Your task to perform on an android device: check android version Image 0: 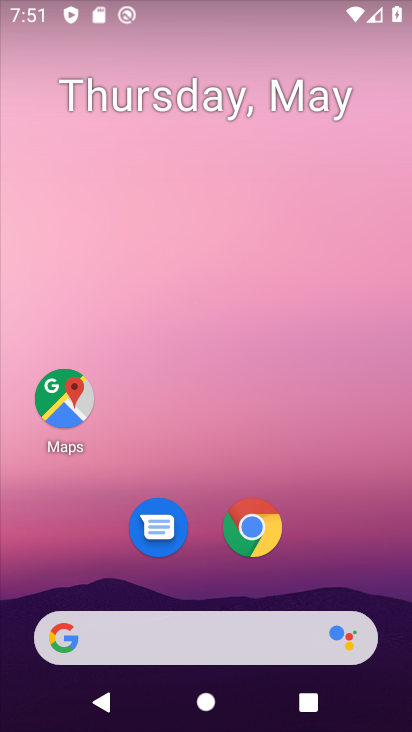
Step 0: drag from (201, 619) to (216, 261)
Your task to perform on an android device: check android version Image 1: 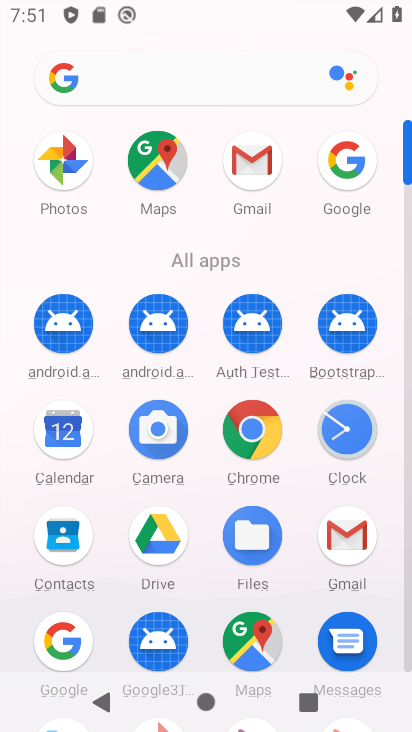
Step 1: drag from (117, 601) to (161, 194)
Your task to perform on an android device: check android version Image 2: 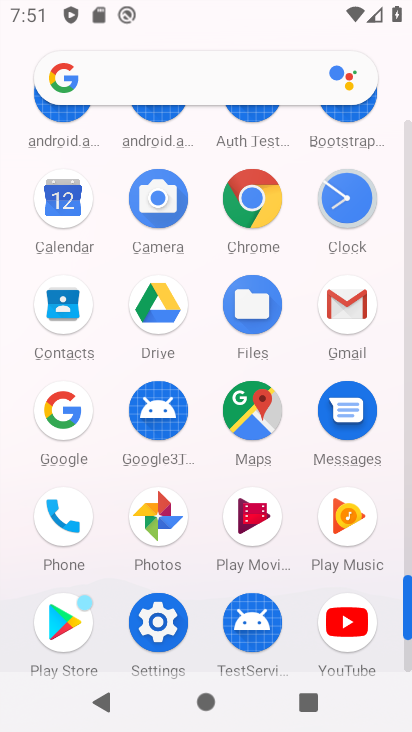
Step 2: click (157, 632)
Your task to perform on an android device: check android version Image 3: 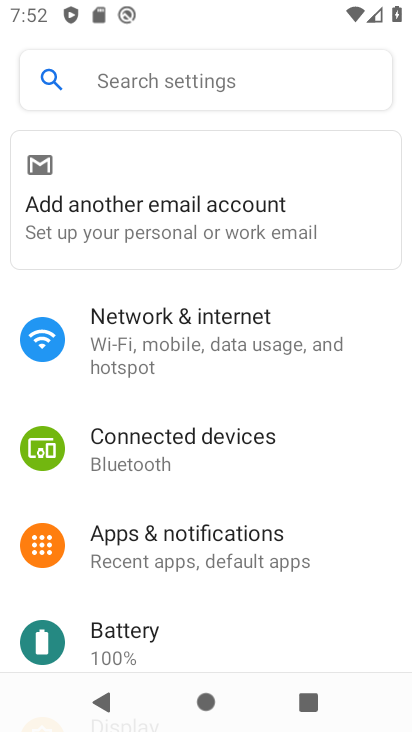
Step 3: drag from (183, 651) to (233, 258)
Your task to perform on an android device: check android version Image 4: 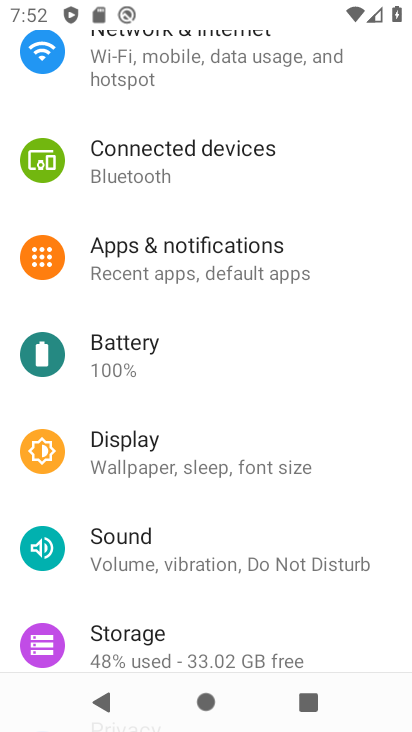
Step 4: drag from (162, 657) to (165, 281)
Your task to perform on an android device: check android version Image 5: 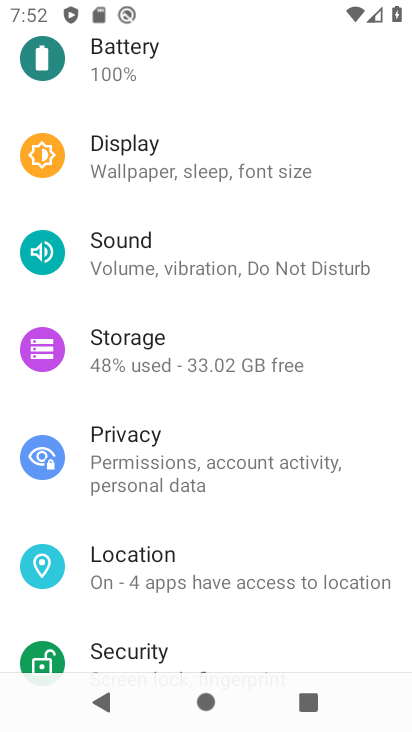
Step 5: drag from (141, 639) to (156, 232)
Your task to perform on an android device: check android version Image 6: 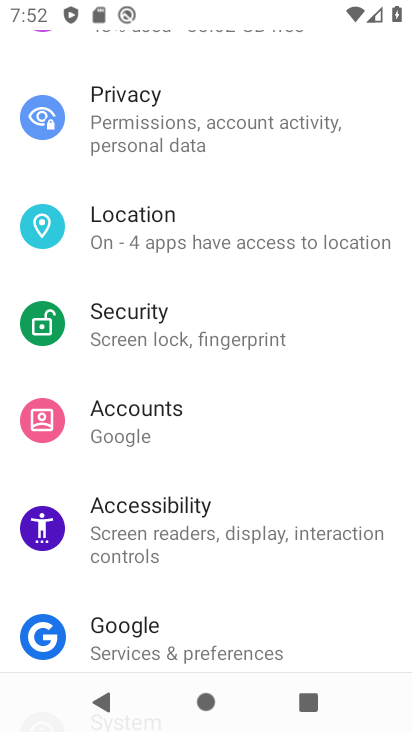
Step 6: drag from (147, 659) to (186, 232)
Your task to perform on an android device: check android version Image 7: 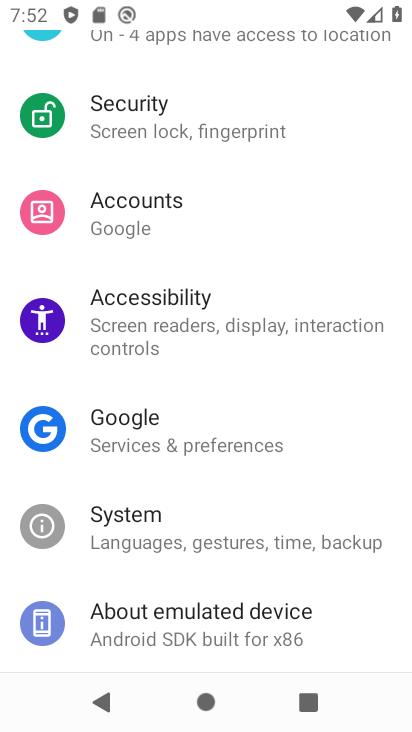
Step 7: click (196, 626)
Your task to perform on an android device: check android version Image 8: 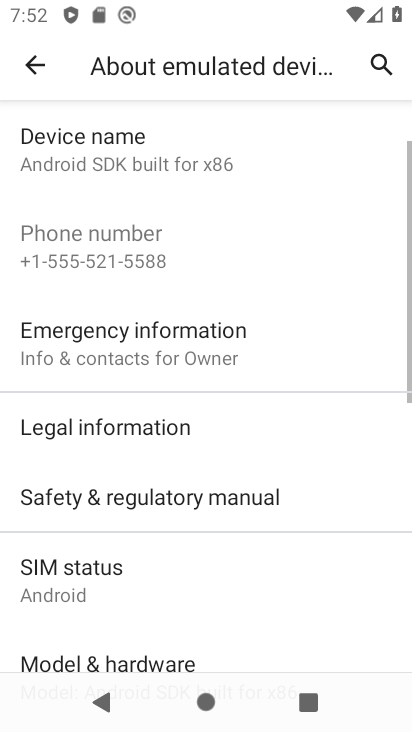
Step 8: drag from (133, 529) to (159, 185)
Your task to perform on an android device: check android version Image 9: 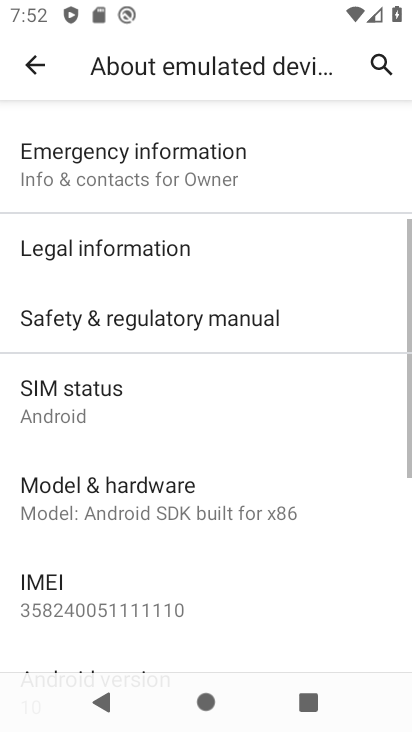
Step 9: drag from (127, 651) to (163, 388)
Your task to perform on an android device: check android version Image 10: 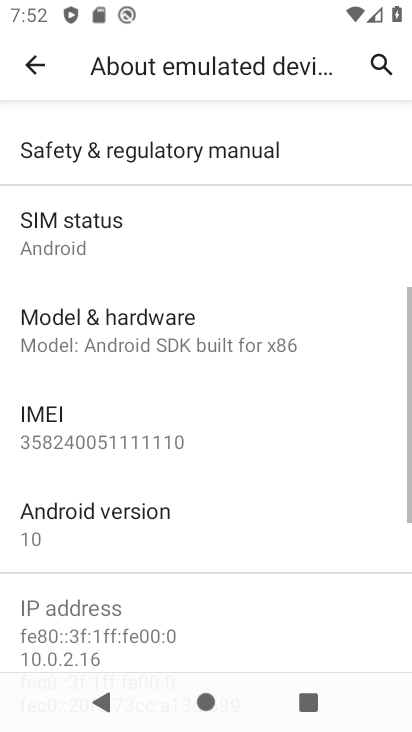
Step 10: click (91, 522)
Your task to perform on an android device: check android version Image 11: 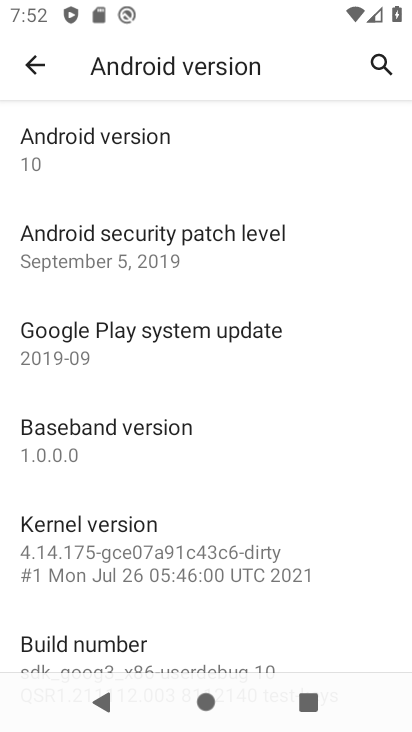
Step 11: drag from (162, 617) to (207, 390)
Your task to perform on an android device: check android version Image 12: 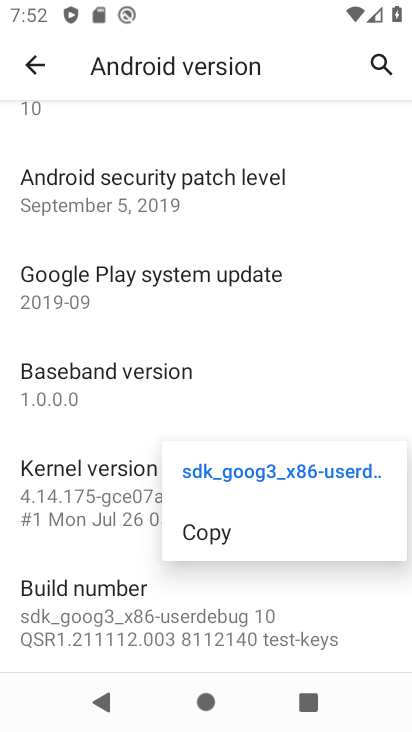
Step 12: click (351, 346)
Your task to perform on an android device: check android version Image 13: 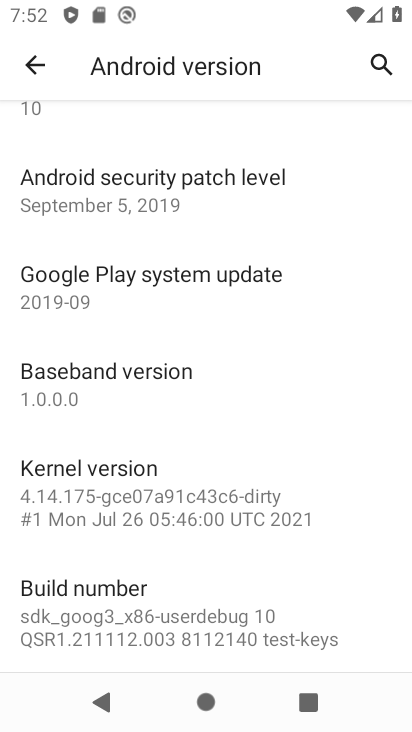
Step 13: task complete